Your task to perform on an android device: open sync settings in chrome Image 0: 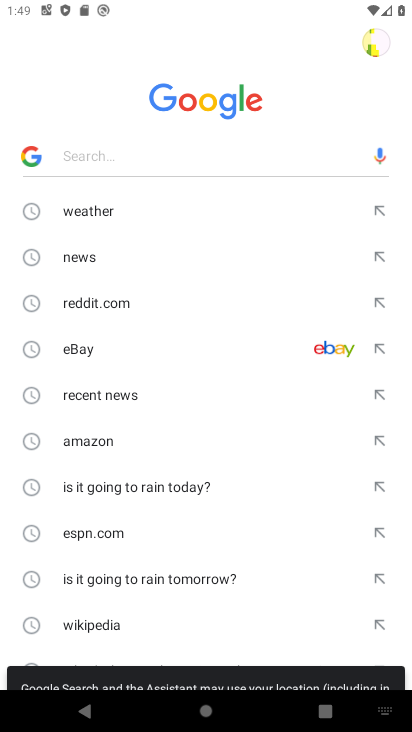
Step 0: press home button
Your task to perform on an android device: open sync settings in chrome Image 1: 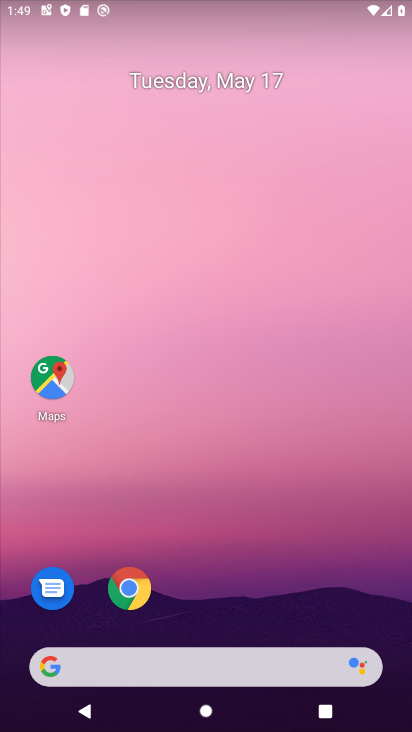
Step 1: click (129, 582)
Your task to perform on an android device: open sync settings in chrome Image 2: 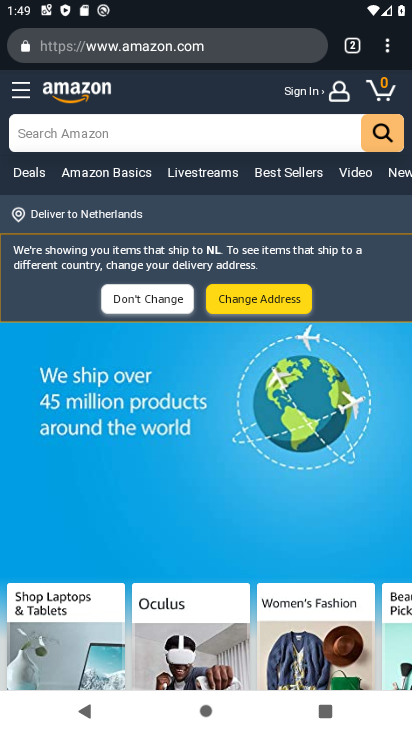
Step 2: click (392, 49)
Your task to perform on an android device: open sync settings in chrome Image 3: 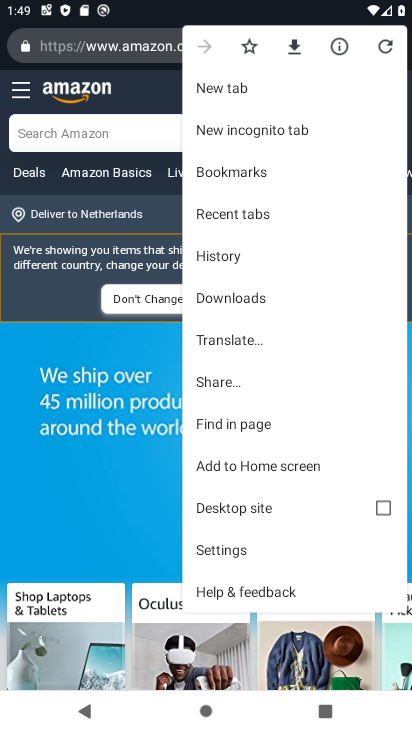
Step 3: click (230, 545)
Your task to perform on an android device: open sync settings in chrome Image 4: 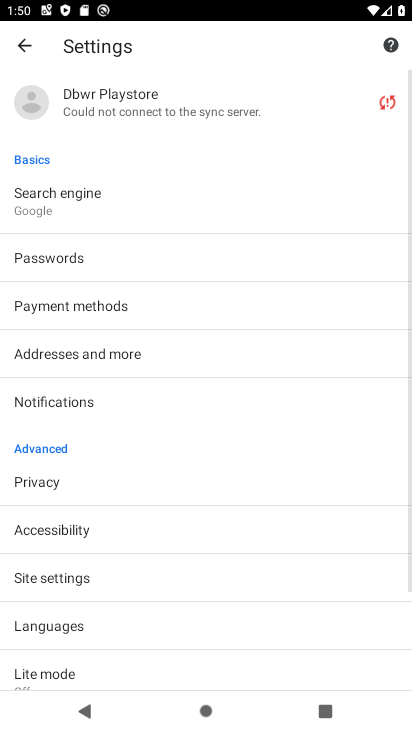
Step 4: click (51, 583)
Your task to perform on an android device: open sync settings in chrome Image 5: 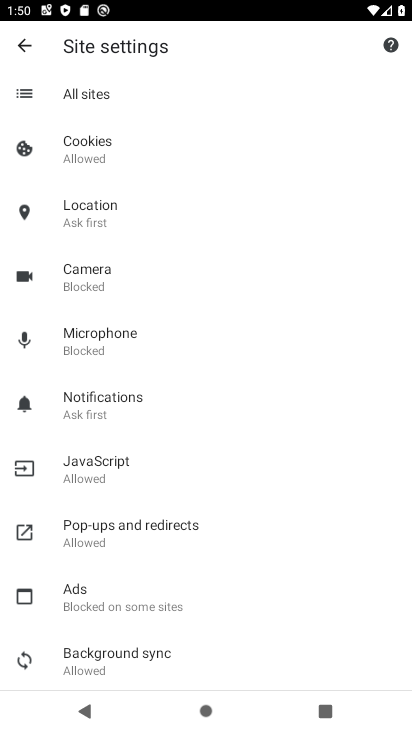
Step 5: click (130, 661)
Your task to perform on an android device: open sync settings in chrome Image 6: 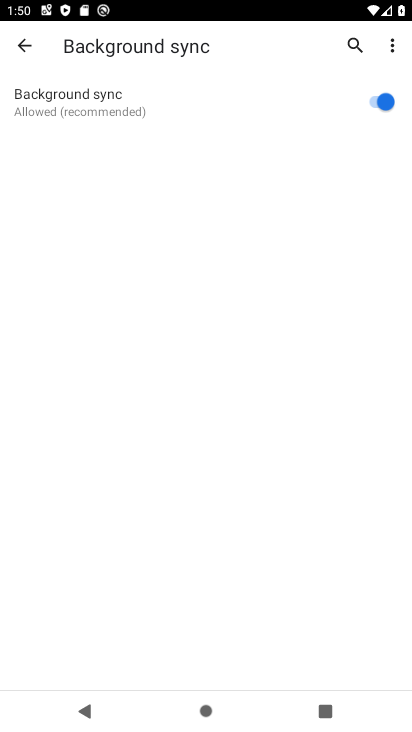
Step 6: task complete